Your task to perform on an android device: Go to Google maps Image 0: 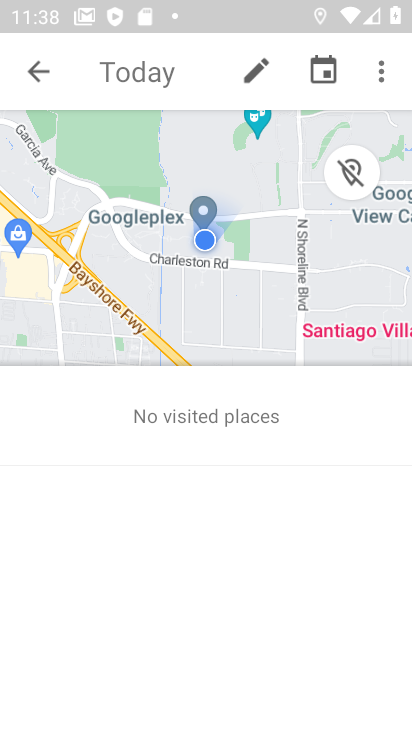
Step 0: press home button
Your task to perform on an android device: Go to Google maps Image 1: 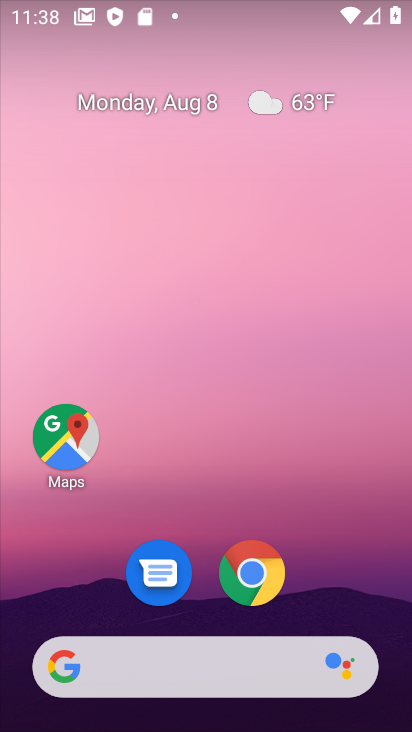
Step 1: click (64, 440)
Your task to perform on an android device: Go to Google maps Image 2: 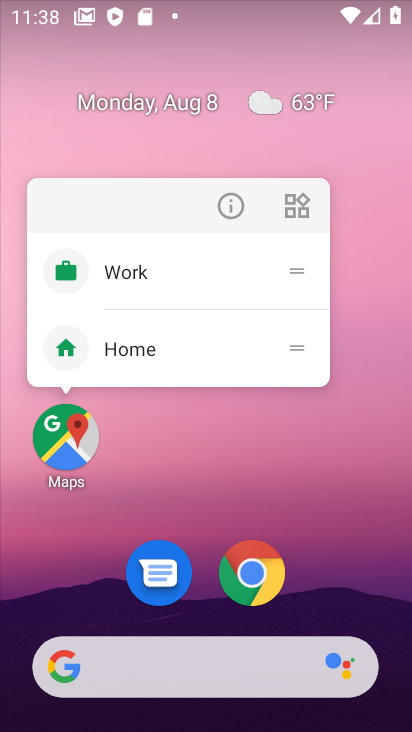
Step 2: click (64, 440)
Your task to perform on an android device: Go to Google maps Image 3: 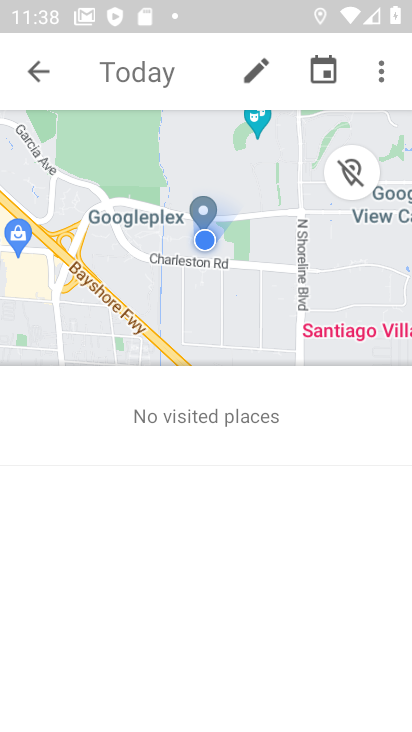
Step 3: click (43, 74)
Your task to perform on an android device: Go to Google maps Image 4: 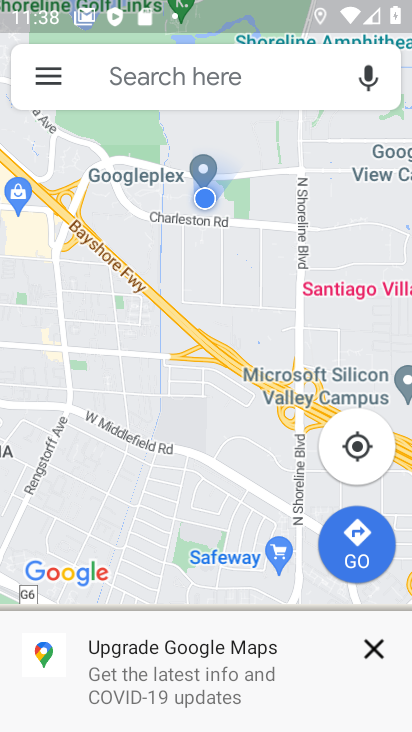
Step 4: task complete